Your task to perform on an android device: turn on sleep mode Image 0: 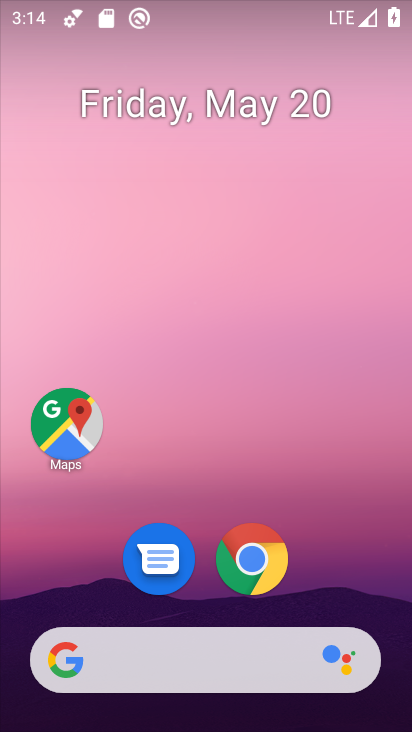
Step 0: drag from (323, 507) to (337, 54)
Your task to perform on an android device: turn on sleep mode Image 1: 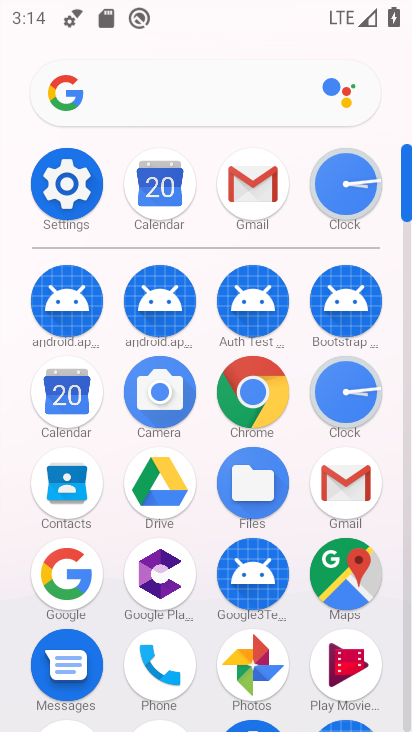
Step 1: click (53, 182)
Your task to perform on an android device: turn on sleep mode Image 2: 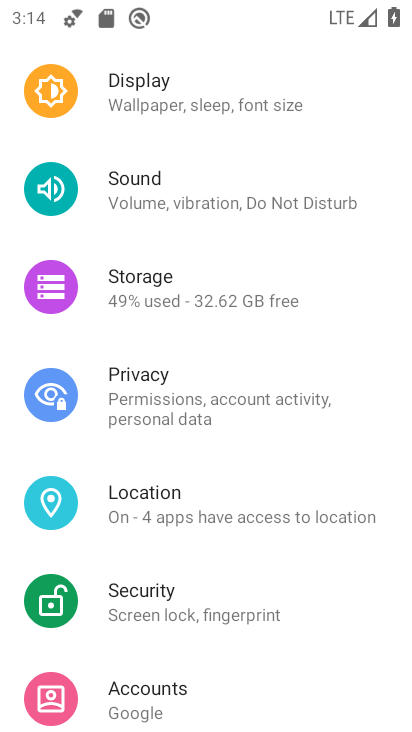
Step 2: click (250, 100)
Your task to perform on an android device: turn on sleep mode Image 3: 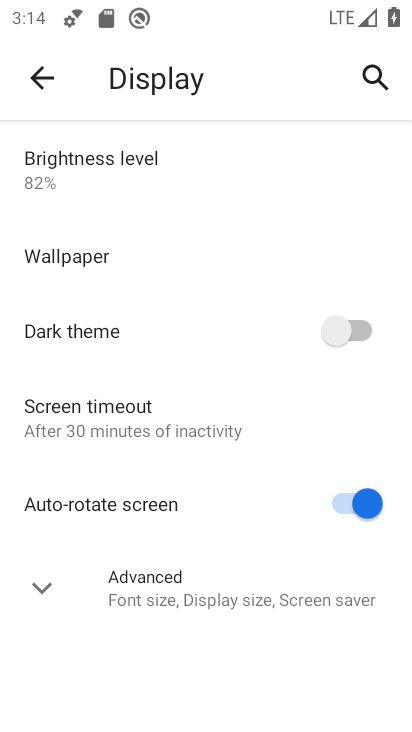
Step 3: click (46, 587)
Your task to perform on an android device: turn on sleep mode Image 4: 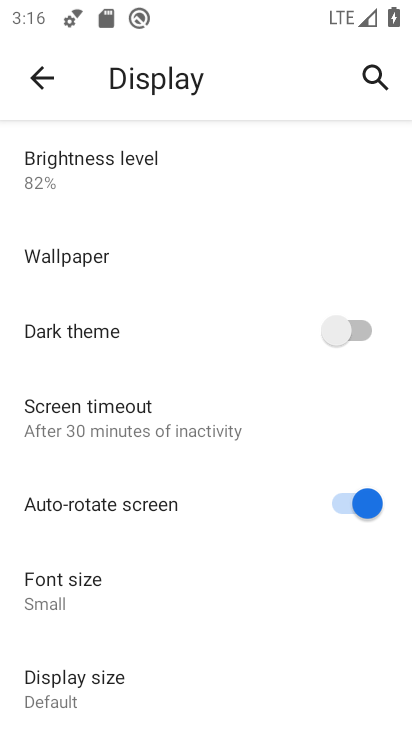
Step 4: task complete